Your task to perform on an android device: find snoozed emails in the gmail app Image 0: 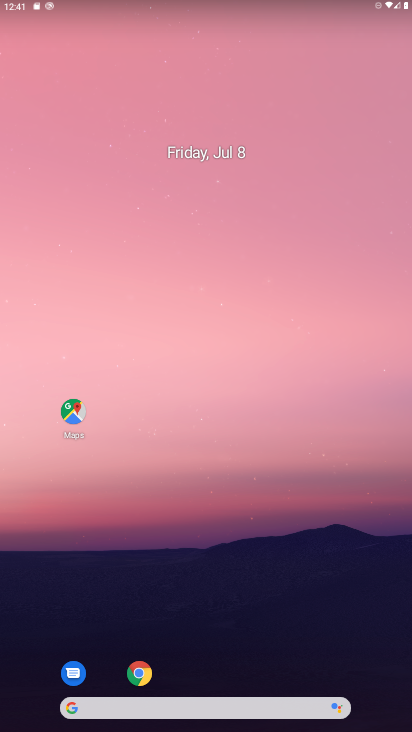
Step 0: drag from (368, 695) to (276, 77)
Your task to perform on an android device: find snoozed emails in the gmail app Image 1: 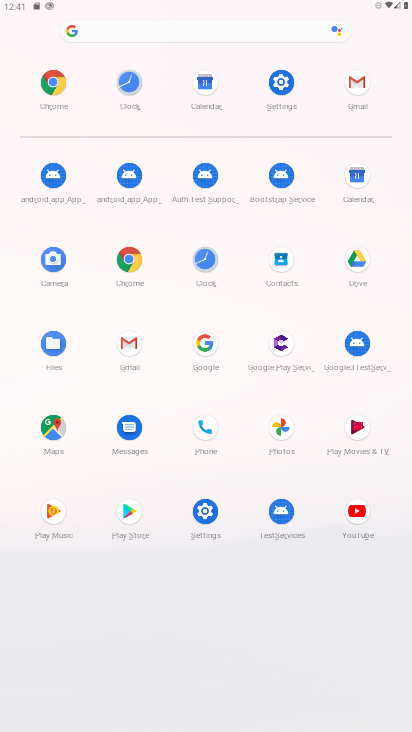
Step 1: click (360, 77)
Your task to perform on an android device: find snoozed emails in the gmail app Image 2: 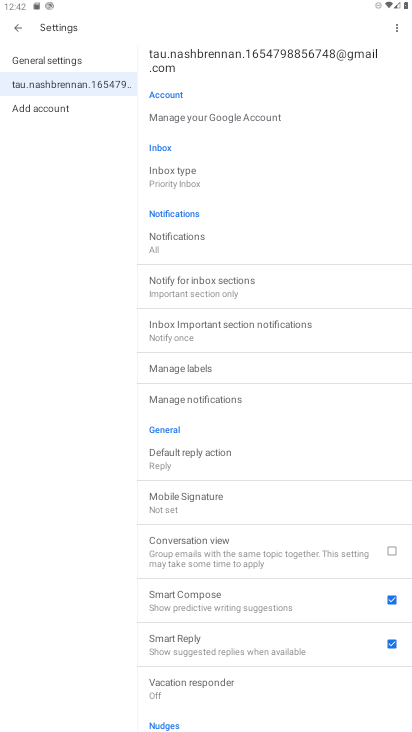
Step 2: press back button
Your task to perform on an android device: find snoozed emails in the gmail app Image 3: 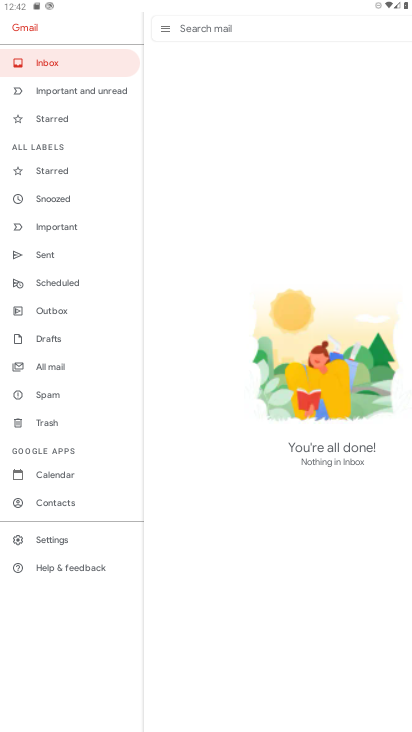
Step 3: press home button
Your task to perform on an android device: find snoozed emails in the gmail app Image 4: 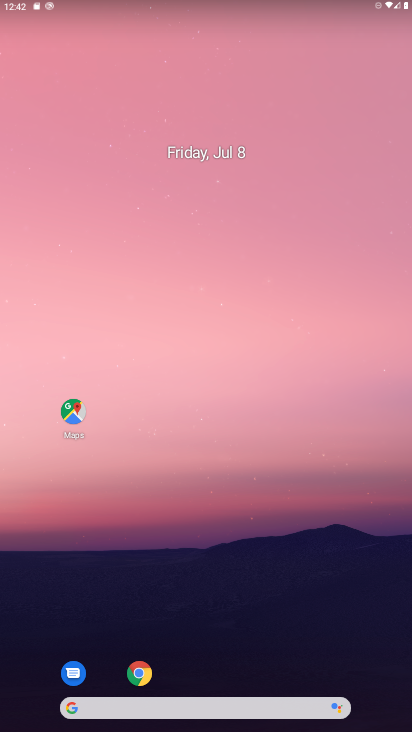
Step 4: drag from (356, 400) to (325, 143)
Your task to perform on an android device: find snoozed emails in the gmail app Image 5: 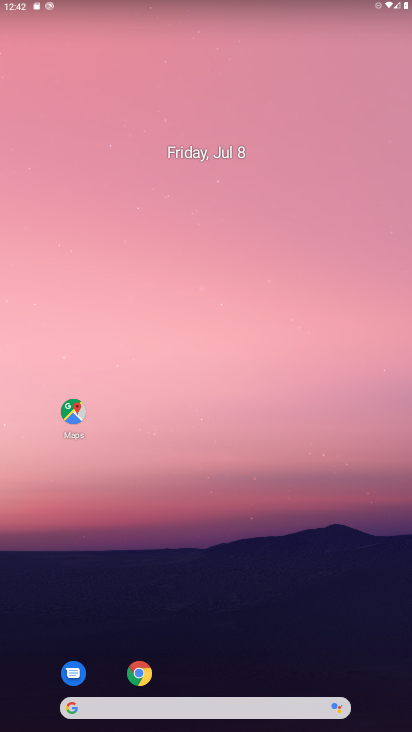
Step 5: drag from (402, 725) to (323, 143)
Your task to perform on an android device: find snoozed emails in the gmail app Image 6: 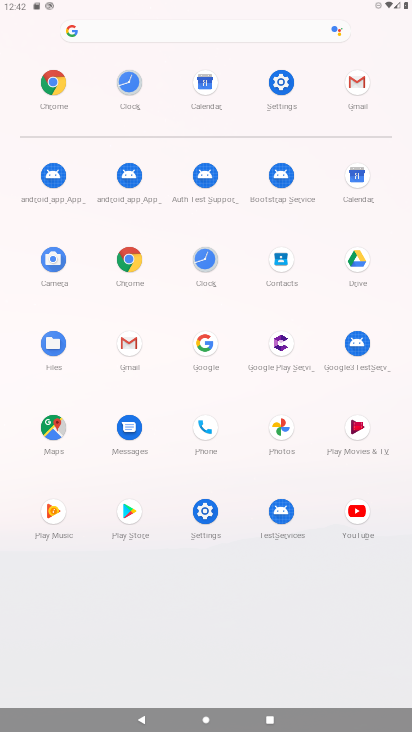
Step 6: click (364, 79)
Your task to perform on an android device: find snoozed emails in the gmail app Image 7: 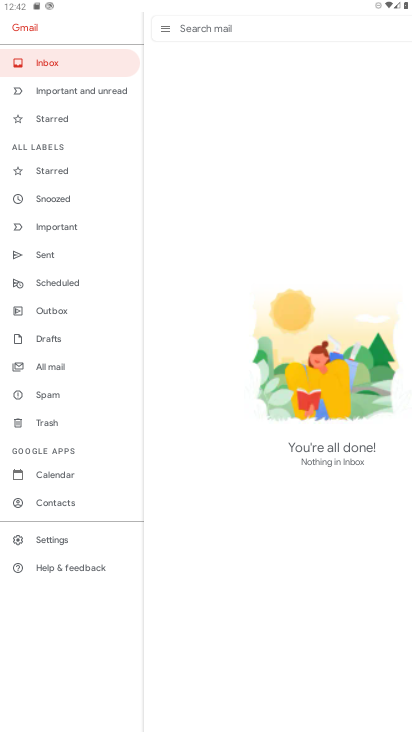
Step 7: click (63, 201)
Your task to perform on an android device: find snoozed emails in the gmail app Image 8: 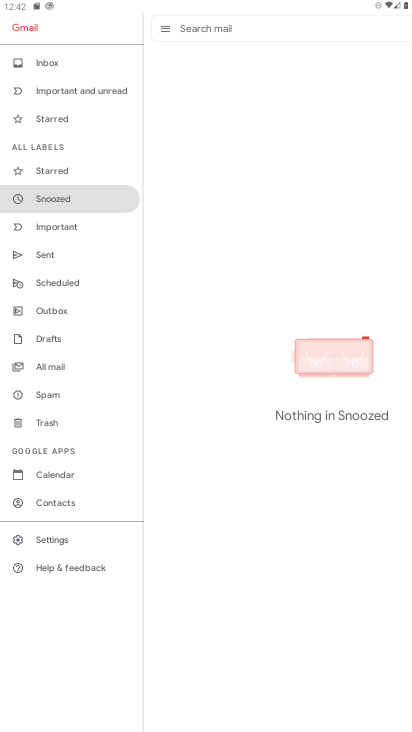
Step 8: task complete